Your task to perform on an android device: Do I have any events tomorrow? Image 0: 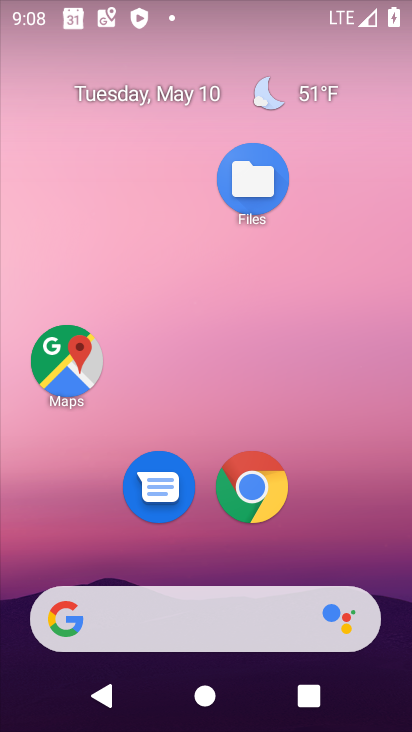
Step 0: drag from (221, 559) to (200, 41)
Your task to perform on an android device: Do I have any events tomorrow? Image 1: 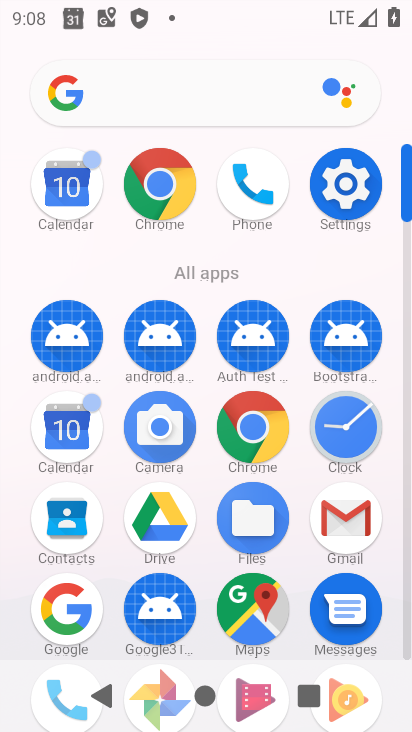
Step 1: click (64, 436)
Your task to perform on an android device: Do I have any events tomorrow? Image 2: 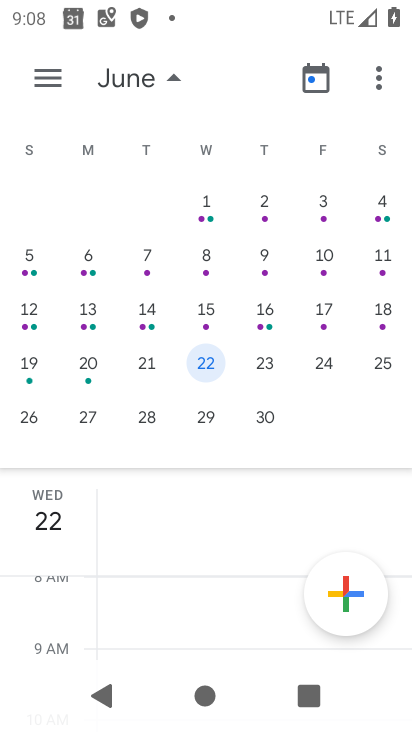
Step 2: drag from (88, 434) to (403, 387)
Your task to perform on an android device: Do I have any events tomorrow? Image 3: 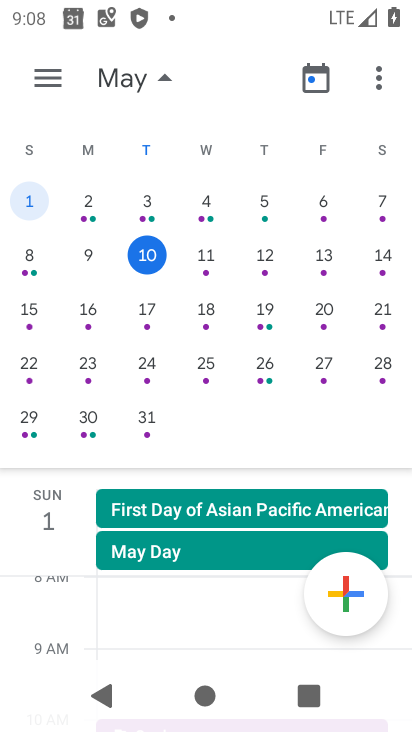
Step 3: click (205, 259)
Your task to perform on an android device: Do I have any events tomorrow? Image 4: 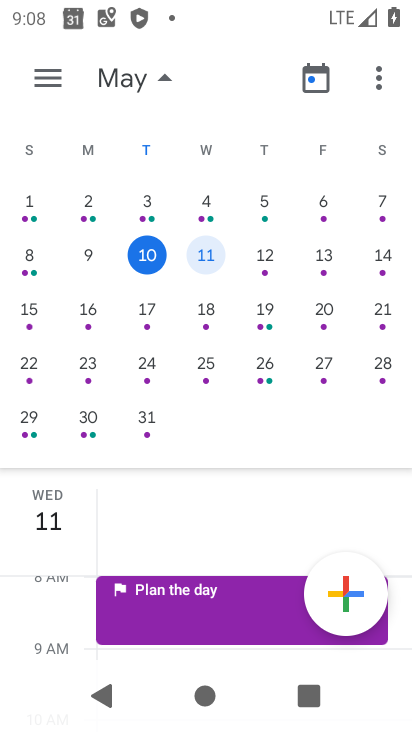
Step 4: task complete